Your task to perform on an android device: Search for acer nitro on bestbuy, select the first entry, and add it to the cart. Image 0: 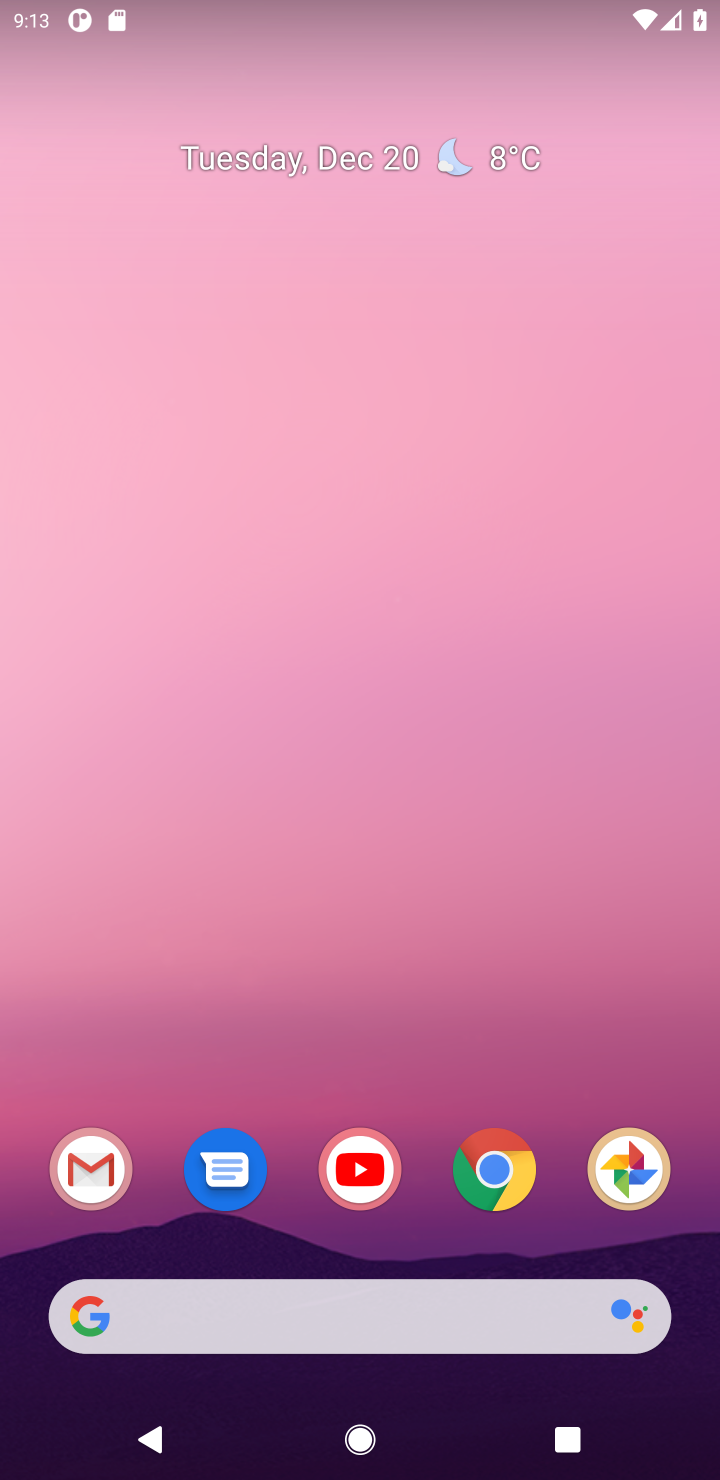
Step 0: click (510, 1158)
Your task to perform on an android device: Search for acer nitro on bestbuy, select the first entry, and add it to the cart. Image 1: 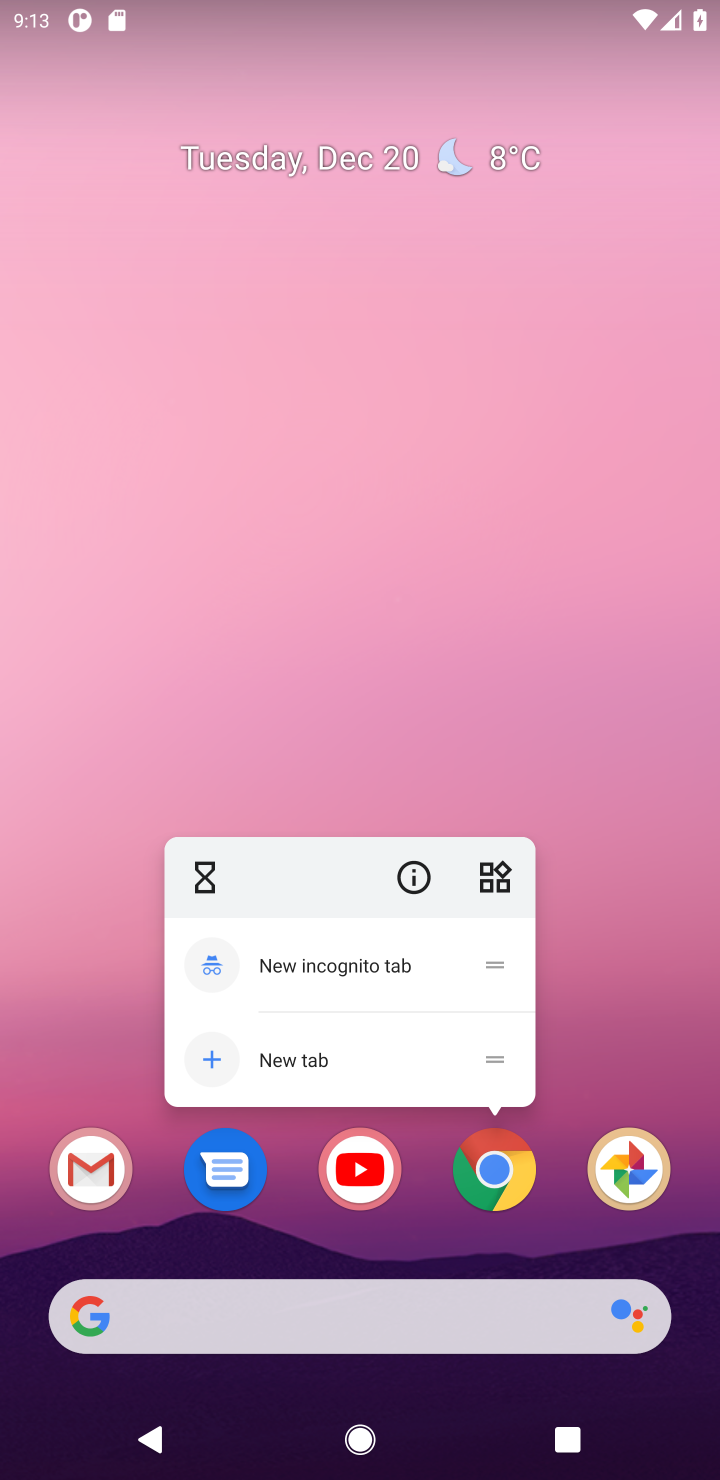
Step 1: click (511, 1174)
Your task to perform on an android device: Search for acer nitro on bestbuy, select the first entry, and add it to the cart. Image 2: 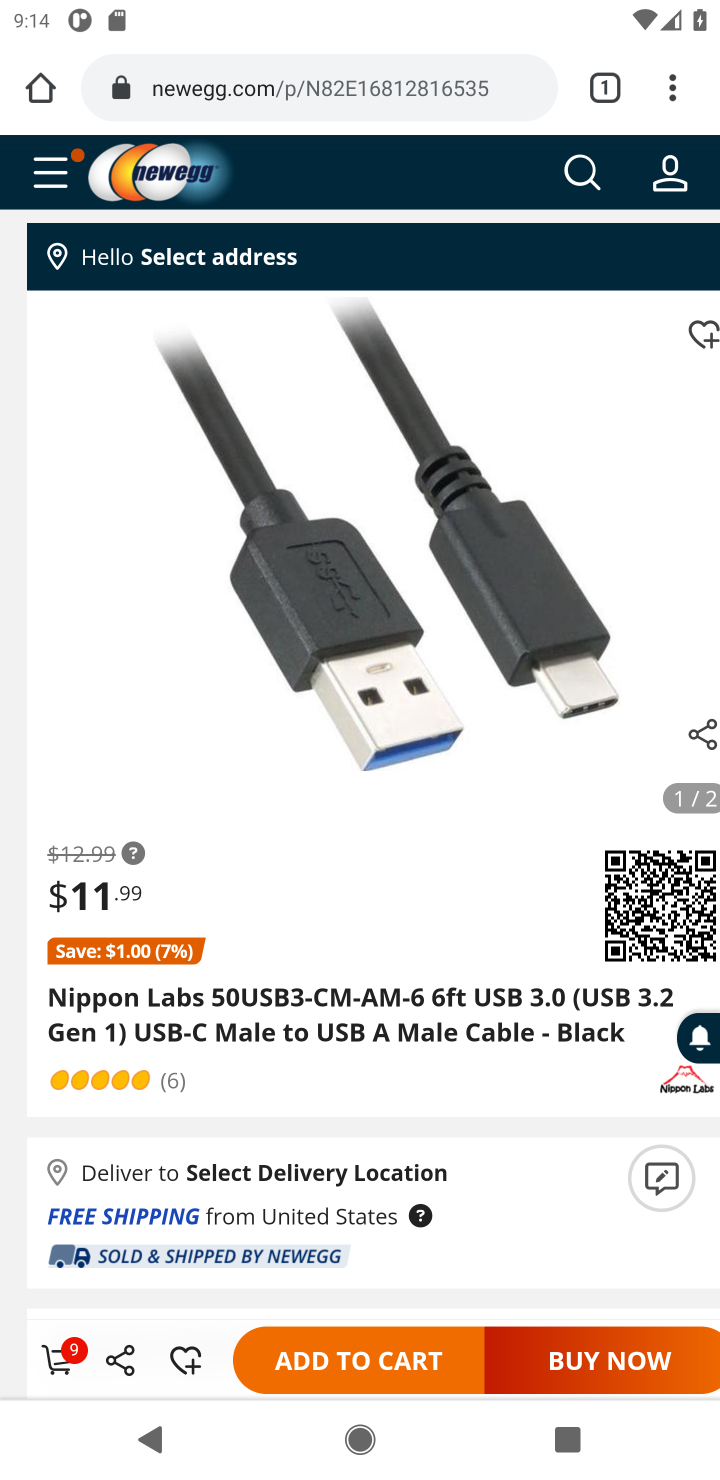
Step 2: click (326, 99)
Your task to perform on an android device: Search for acer nitro on bestbuy, select the first entry, and add it to the cart. Image 3: 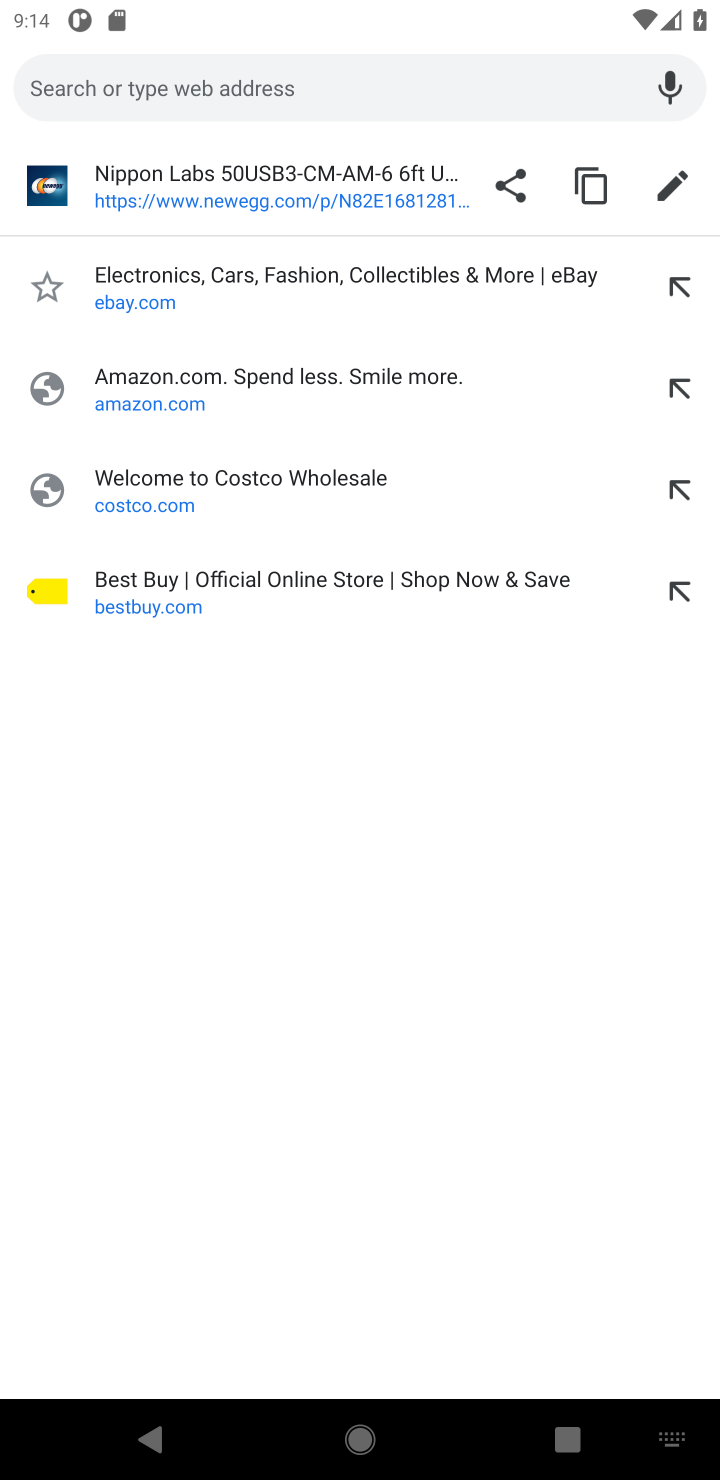
Step 3: click (453, 580)
Your task to perform on an android device: Search for acer nitro on bestbuy, select the first entry, and add it to the cart. Image 4: 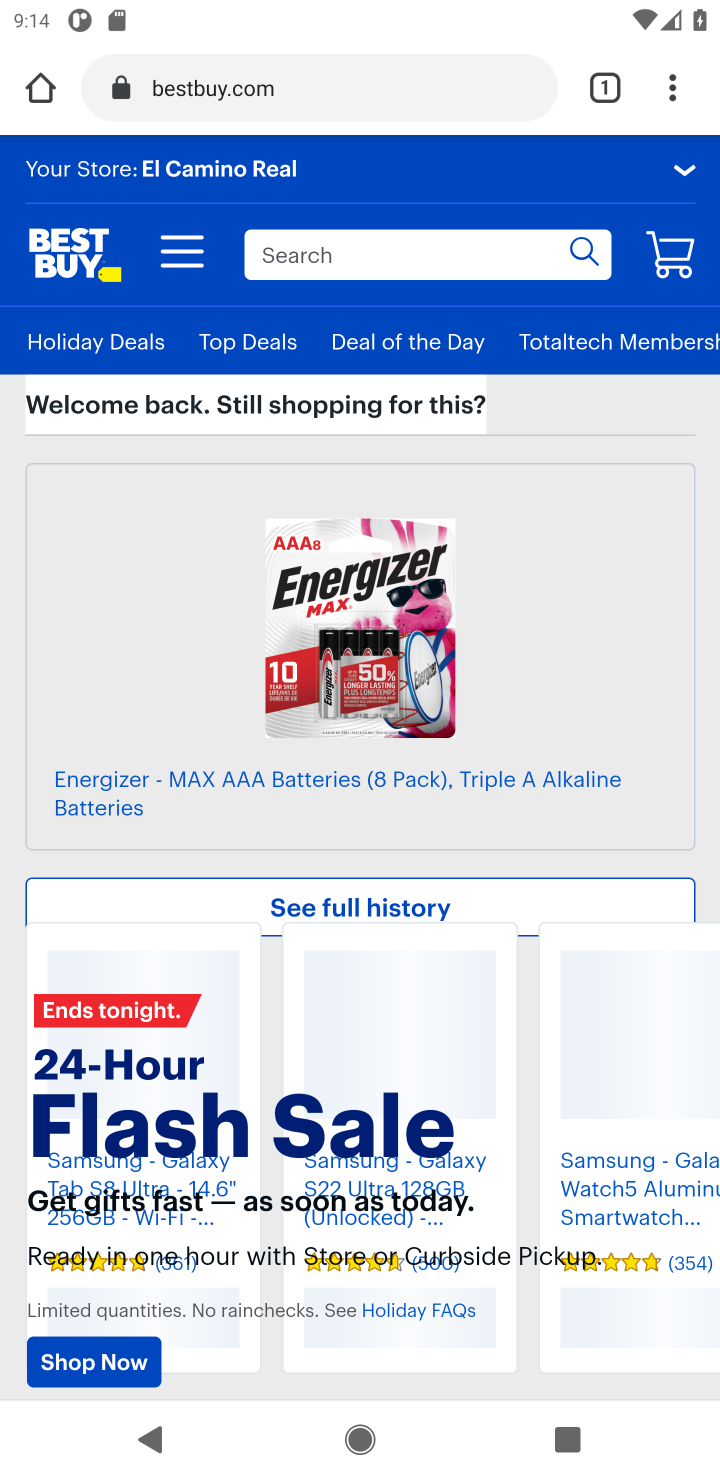
Step 4: click (275, 265)
Your task to perform on an android device: Search for acer nitro on bestbuy, select the first entry, and add it to the cart. Image 5: 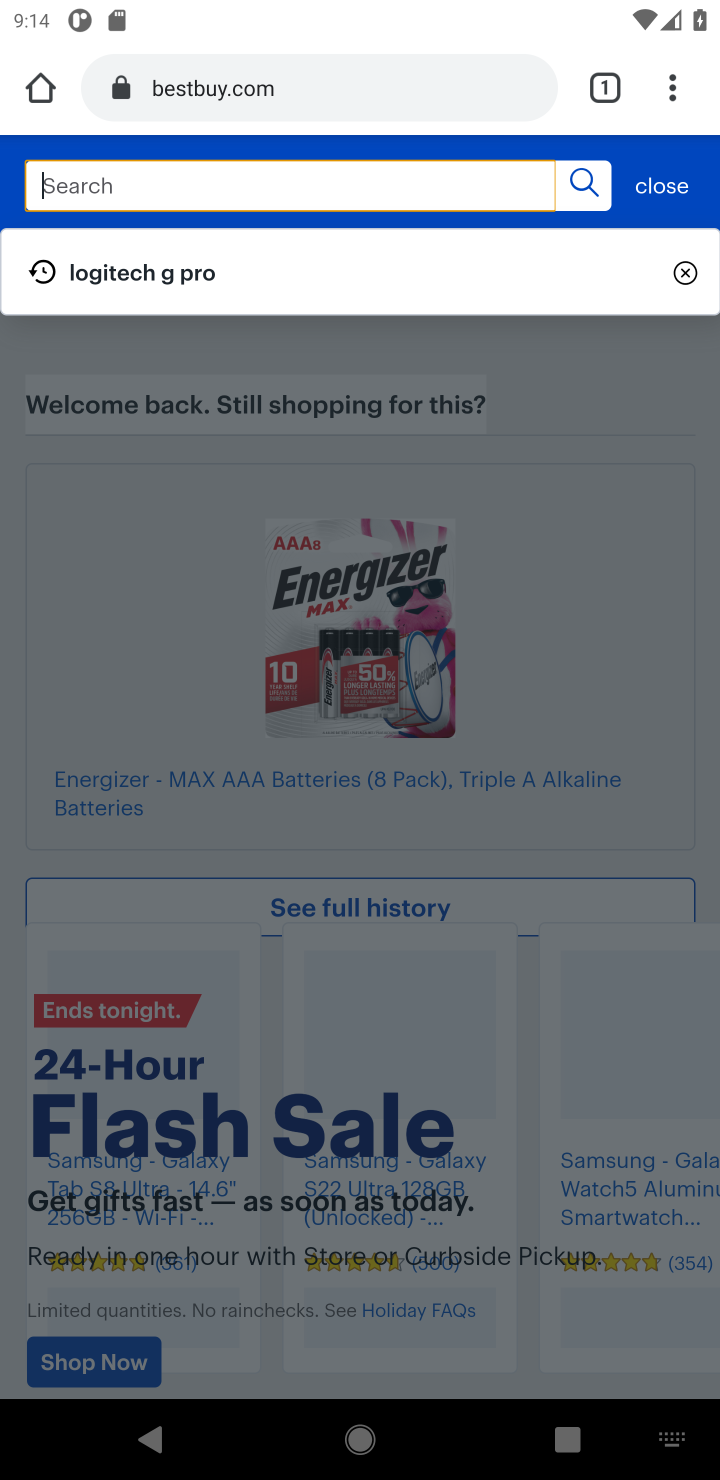
Step 5: type "acer nitro"
Your task to perform on an android device: Search for acer nitro on bestbuy, select the first entry, and add it to the cart. Image 6: 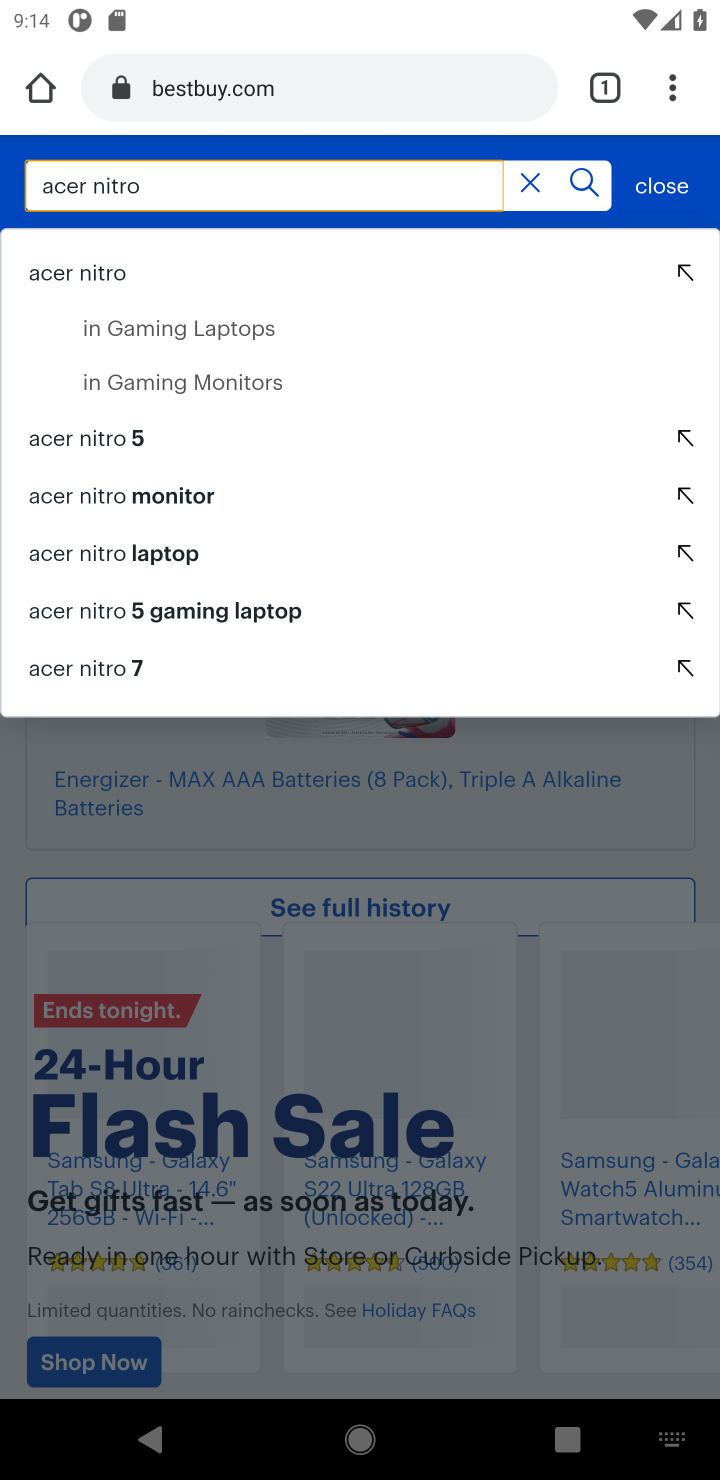
Step 6: click (82, 260)
Your task to perform on an android device: Search for acer nitro on bestbuy, select the first entry, and add it to the cart. Image 7: 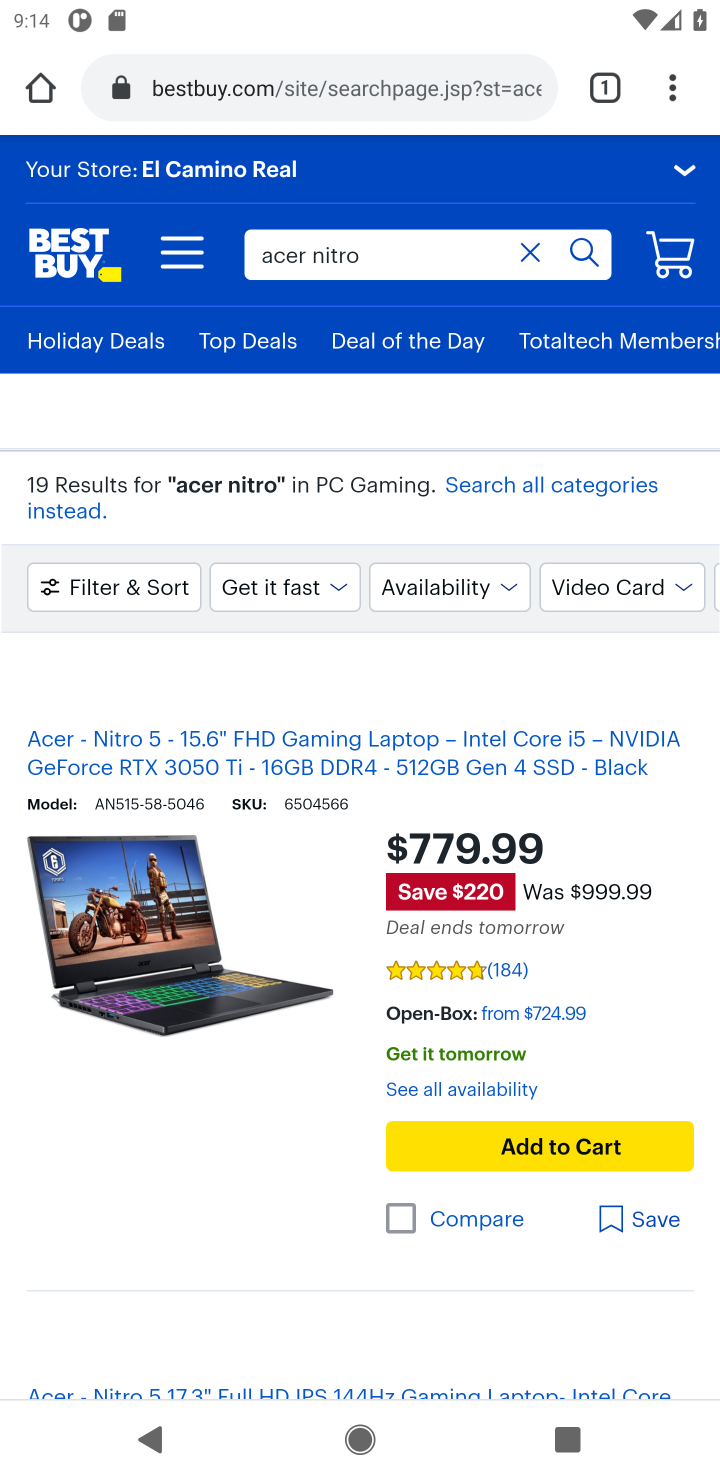
Step 7: click (519, 1140)
Your task to perform on an android device: Search for acer nitro on bestbuy, select the first entry, and add it to the cart. Image 8: 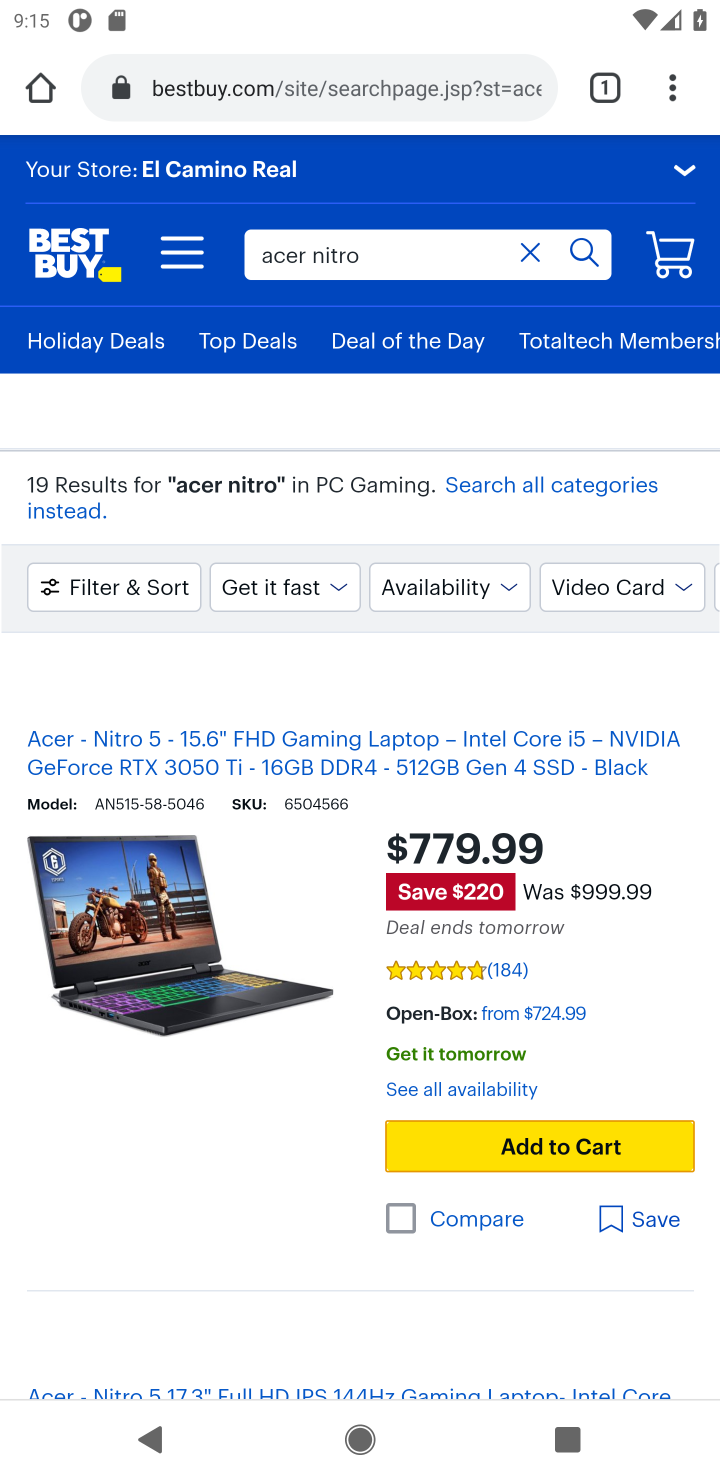
Step 8: task complete